Your task to perform on an android device: turn off javascript in the chrome app Image 0: 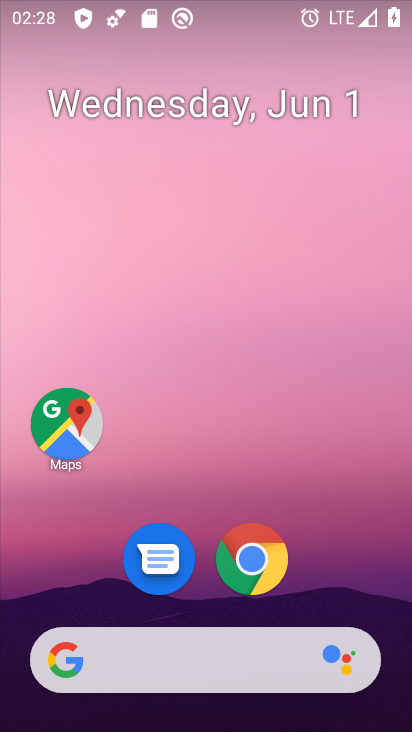
Step 0: press home button
Your task to perform on an android device: turn off javascript in the chrome app Image 1: 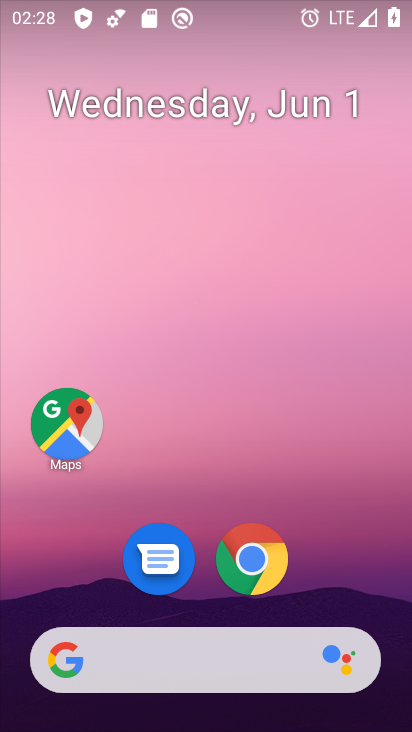
Step 1: click (263, 553)
Your task to perform on an android device: turn off javascript in the chrome app Image 2: 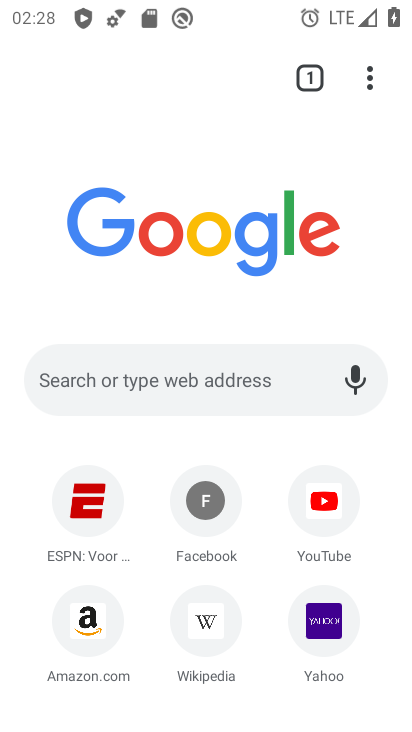
Step 2: drag from (370, 74) to (83, 642)
Your task to perform on an android device: turn off javascript in the chrome app Image 3: 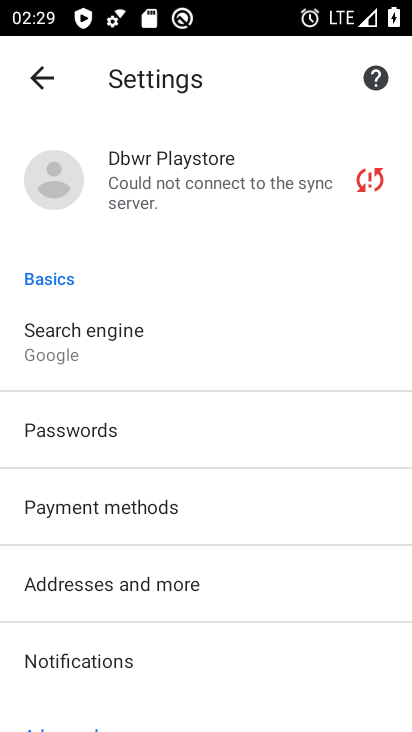
Step 3: drag from (239, 670) to (255, 291)
Your task to perform on an android device: turn off javascript in the chrome app Image 4: 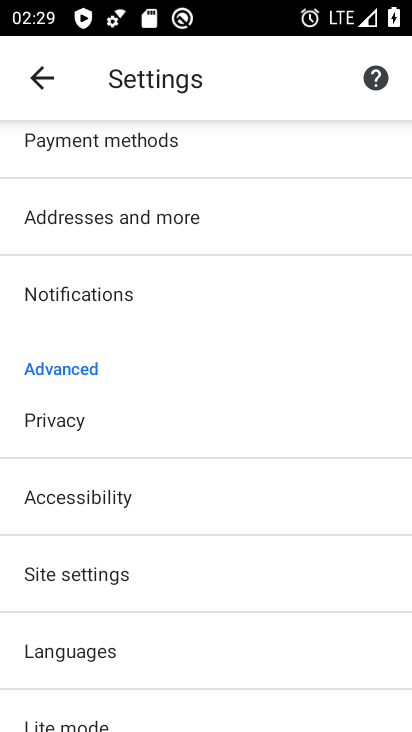
Step 4: click (78, 575)
Your task to perform on an android device: turn off javascript in the chrome app Image 5: 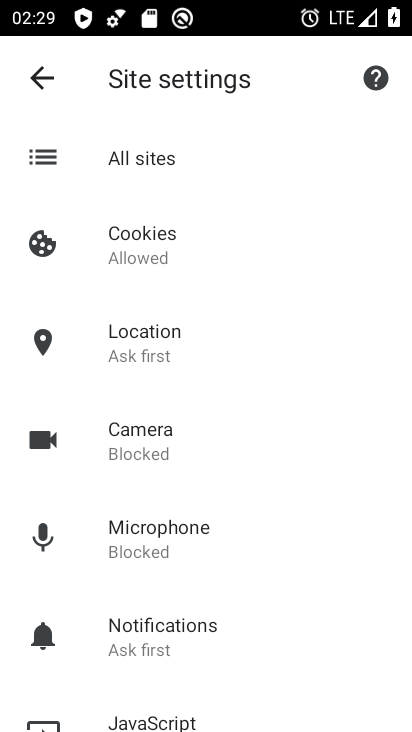
Step 5: drag from (334, 642) to (337, 370)
Your task to perform on an android device: turn off javascript in the chrome app Image 6: 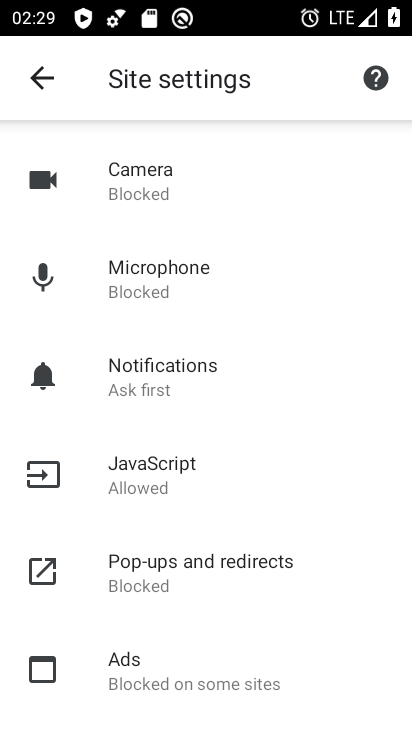
Step 6: click (150, 476)
Your task to perform on an android device: turn off javascript in the chrome app Image 7: 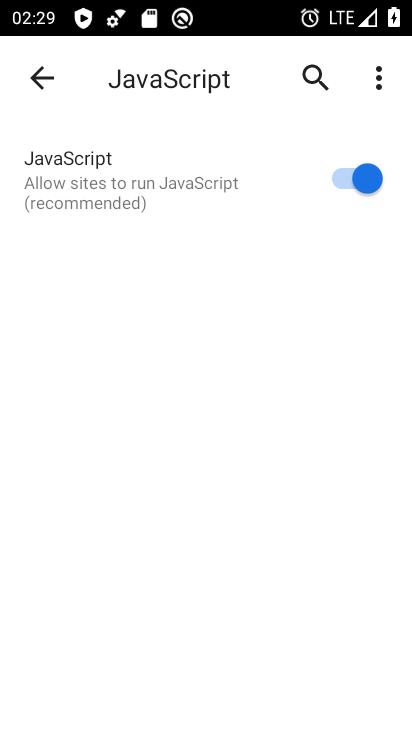
Step 7: click (373, 179)
Your task to perform on an android device: turn off javascript in the chrome app Image 8: 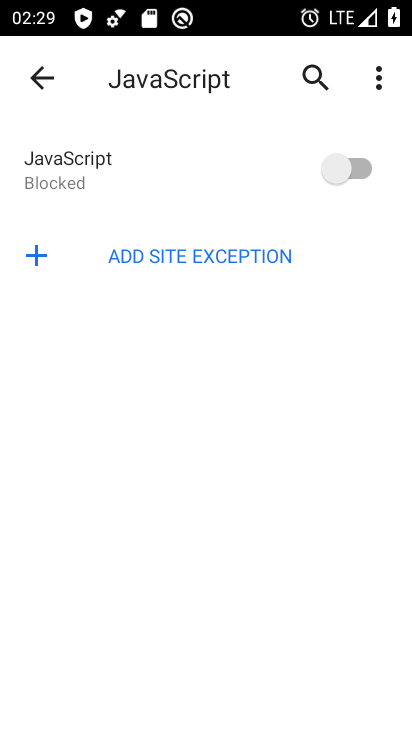
Step 8: task complete